Your task to perform on an android device: Go to settings Image 0: 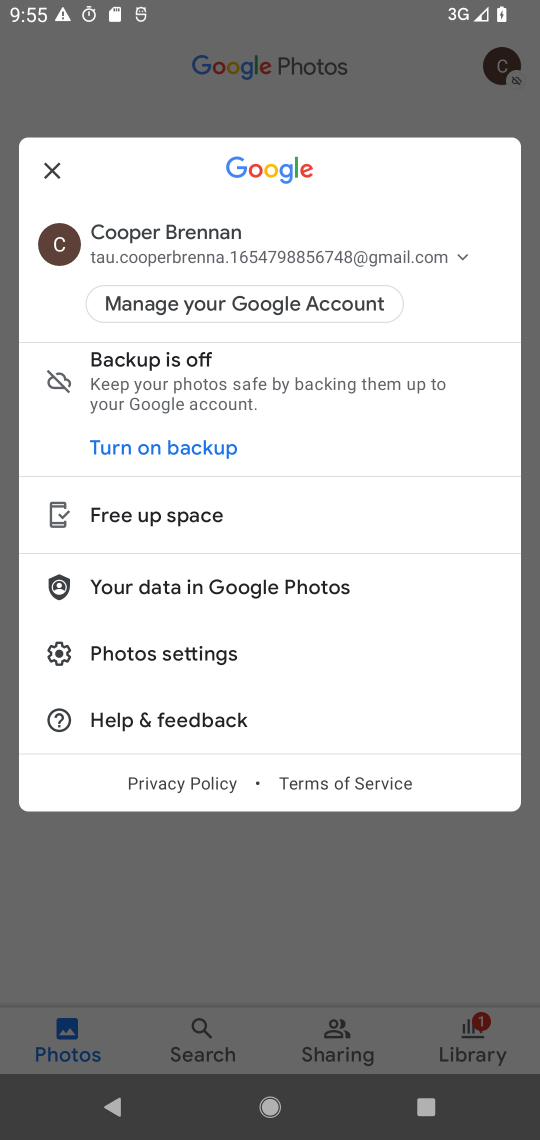
Step 0: press home button
Your task to perform on an android device: Go to settings Image 1: 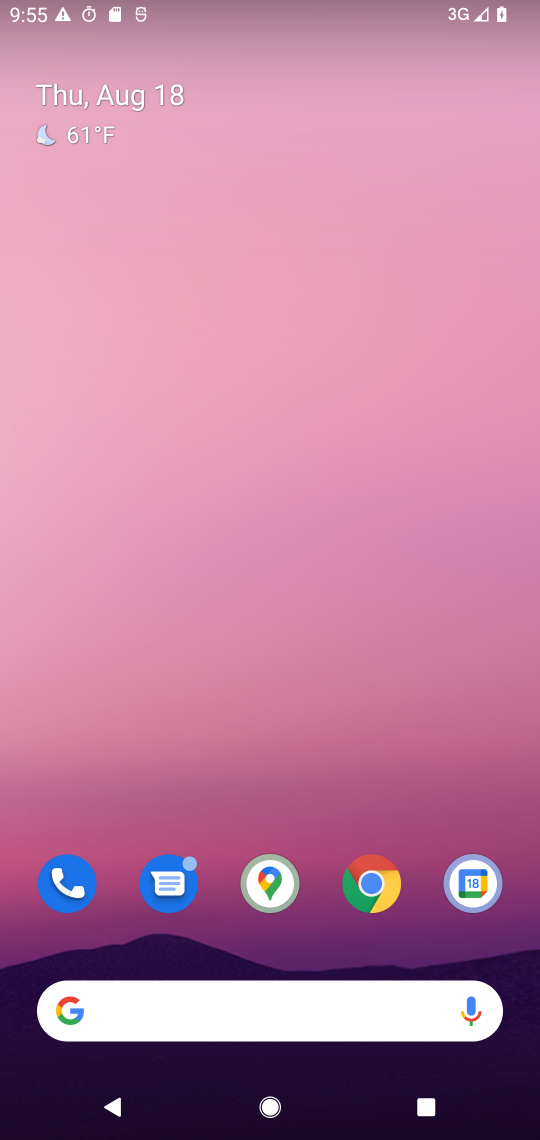
Step 1: drag from (50, 1101) to (398, 1)
Your task to perform on an android device: Go to settings Image 2: 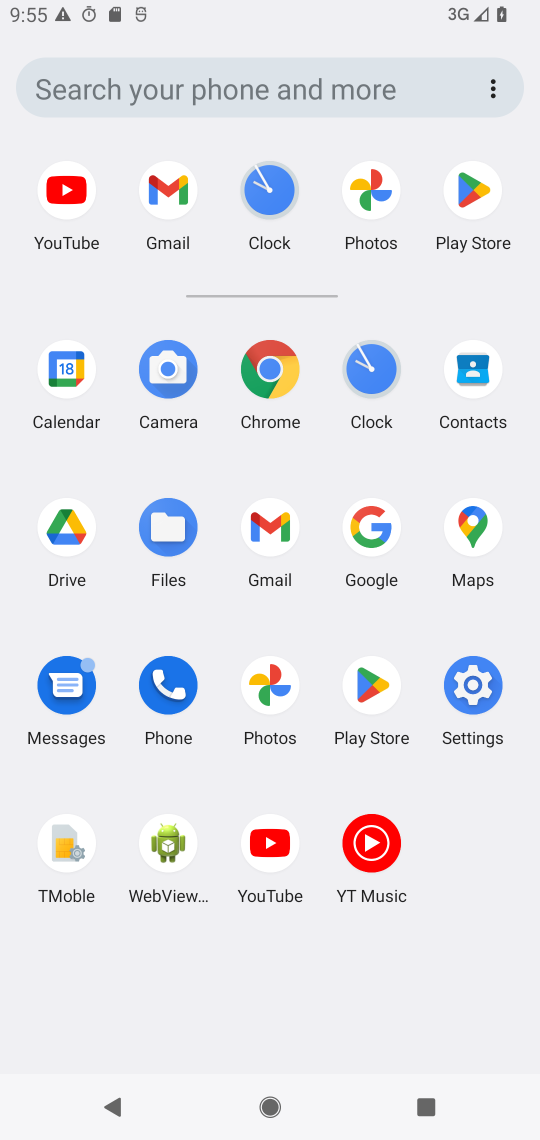
Step 2: click (459, 699)
Your task to perform on an android device: Go to settings Image 3: 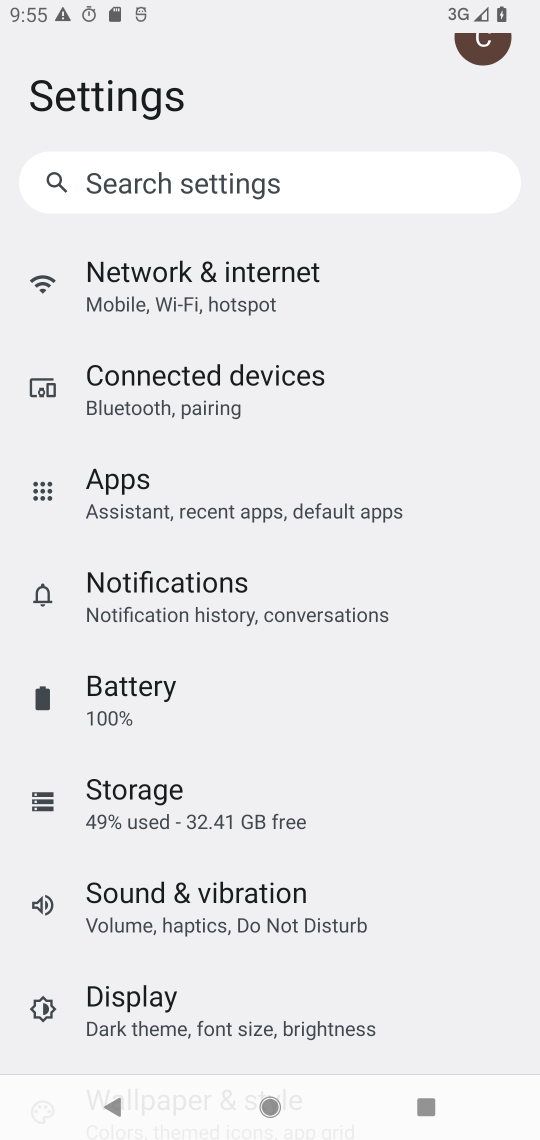
Step 3: task complete